Your task to perform on an android device: turn off priority inbox in the gmail app Image 0: 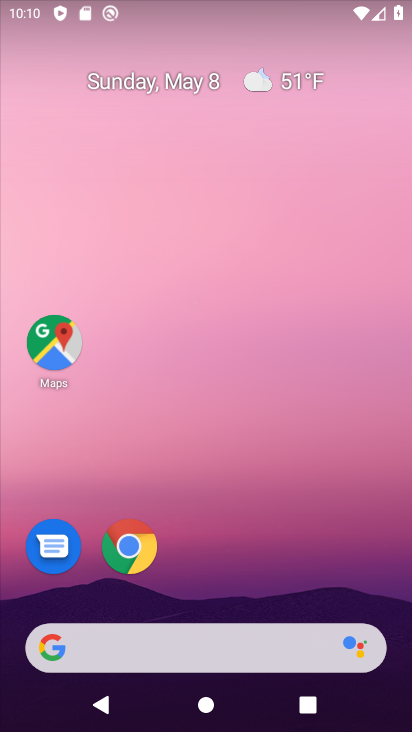
Step 0: drag from (207, 572) to (228, 72)
Your task to perform on an android device: turn off priority inbox in the gmail app Image 1: 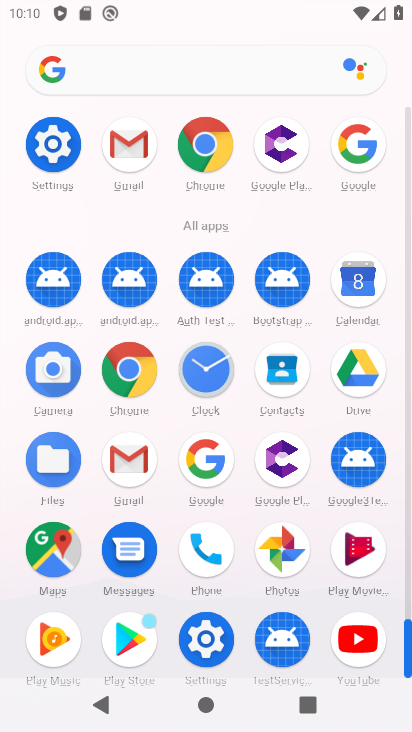
Step 1: click (128, 146)
Your task to perform on an android device: turn off priority inbox in the gmail app Image 2: 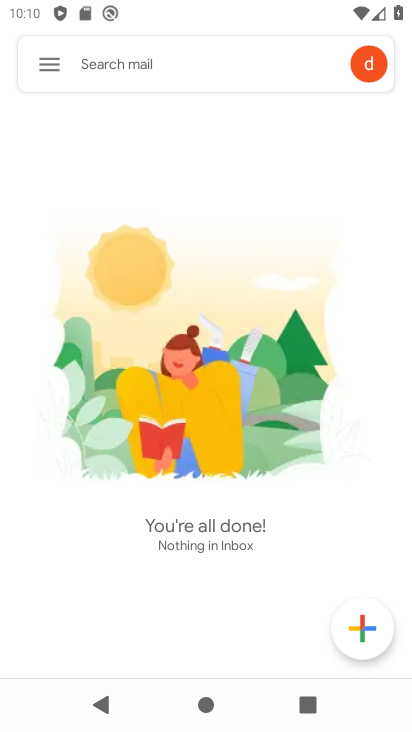
Step 2: click (46, 71)
Your task to perform on an android device: turn off priority inbox in the gmail app Image 3: 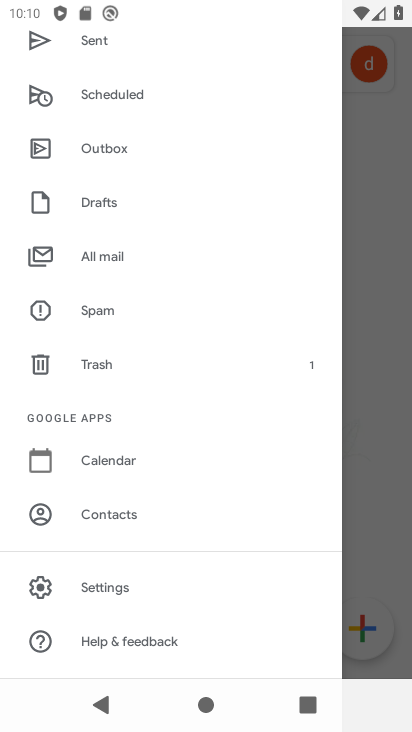
Step 3: click (99, 589)
Your task to perform on an android device: turn off priority inbox in the gmail app Image 4: 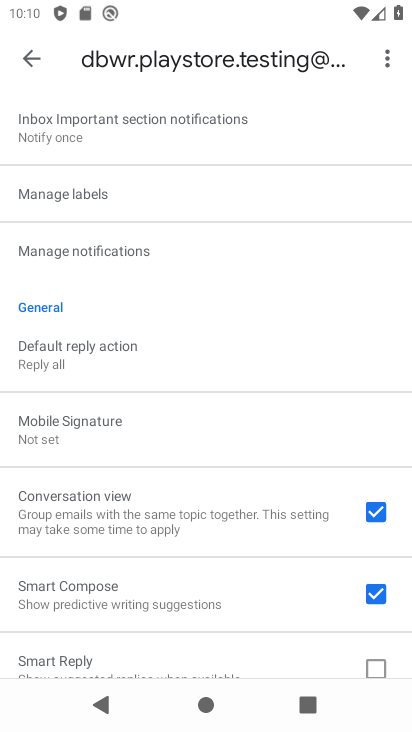
Step 4: drag from (196, 349) to (176, 442)
Your task to perform on an android device: turn off priority inbox in the gmail app Image 5: 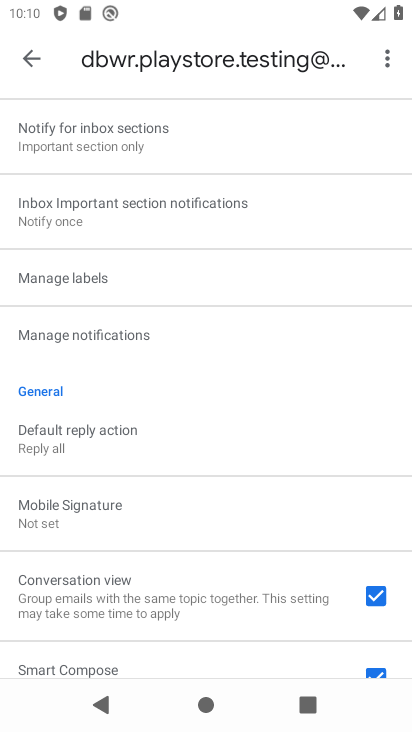
Step 5: drag from (250, 237) to (237, 377)
Your task to perform on an android device: turn off priority inbox in the gmail app Image 6: 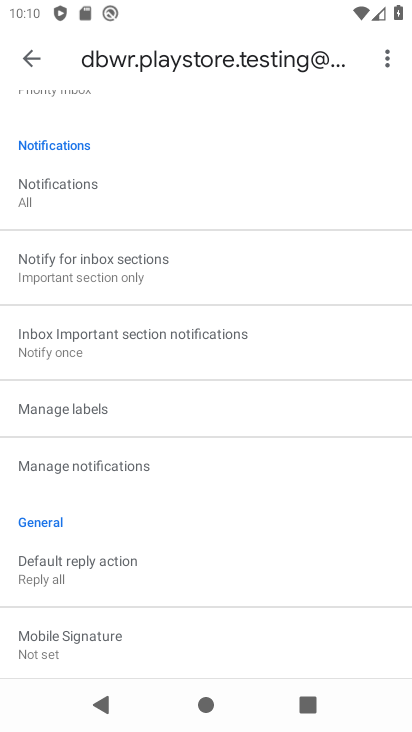
Step 6: drag from (210, 187) to (202, 304)
Your task to perform on an android device: turn off priority inbox in the gmail app Image 7: 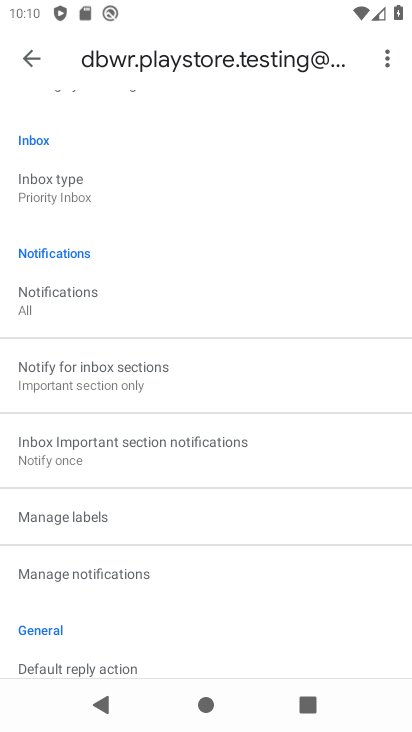
Step 7: click (80, 184)
Your task to perform on an android device: turn off priority inbox in the gmail app Image 8: 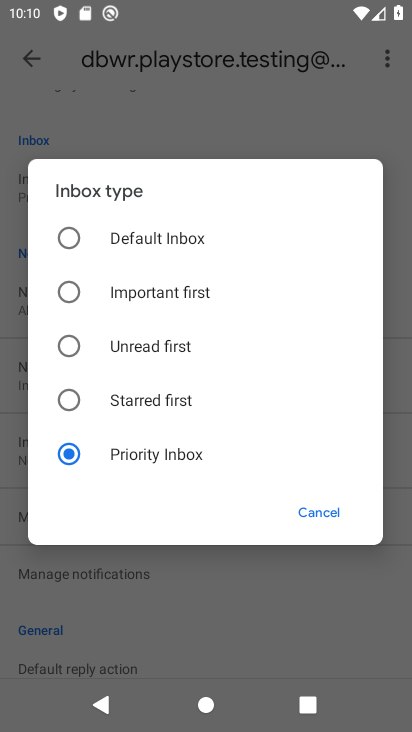
Step 8: click (65, 230)
Your task to perform on an android device: turn off priority inbox in the gmail app Image 9: 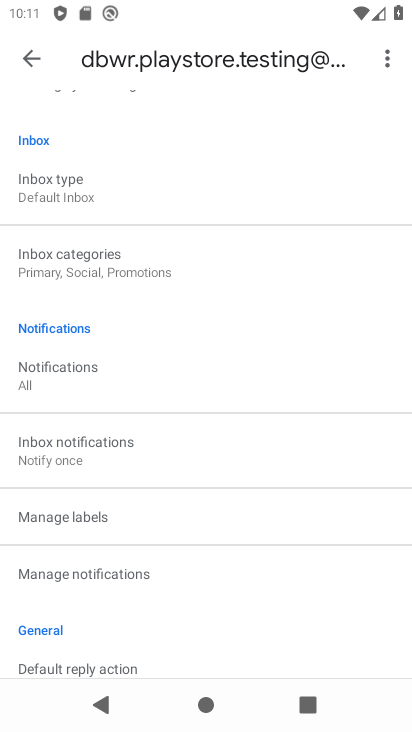
Step 9: task complete